Your task to perform on an android device: toggle airplane mode Image 0: 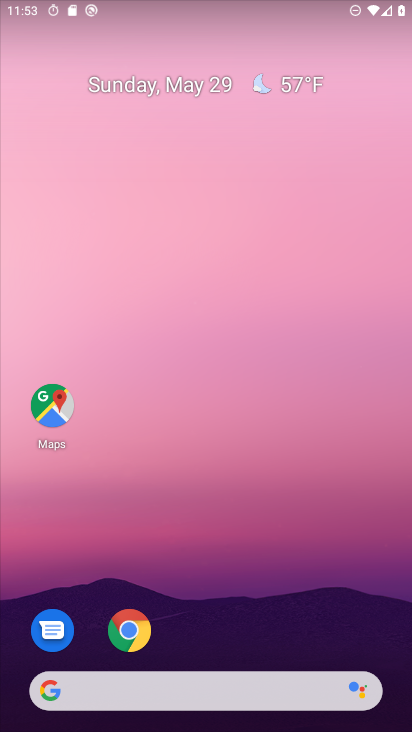
Step 0: drag from (272, 584) to (222, 89)
Your task to perform on an android device: toggle airplane mode Image 1: 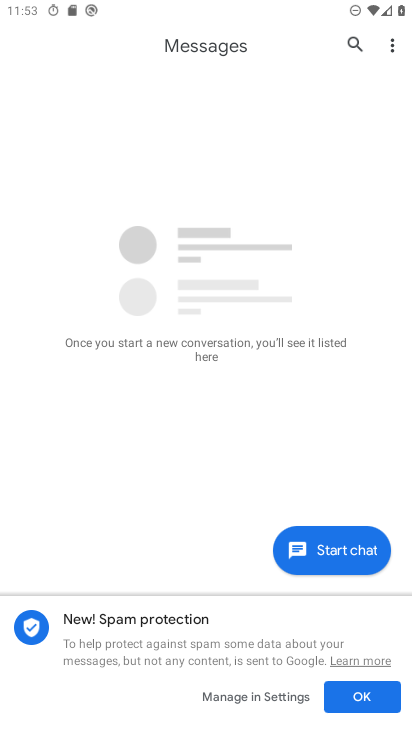
Step 1: press home button
Your task to perform on an android device: toggle airplane mode Image 2: 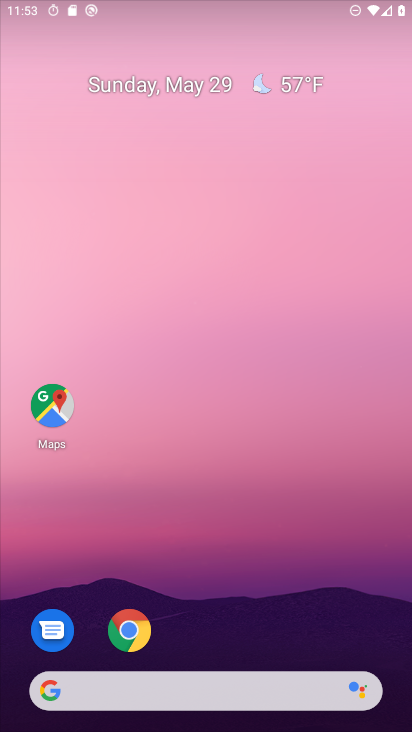
Step 2: drag from (209, 710) to (107, 16)
Your task to perform on an android device: toggle airplane mode Image 3: 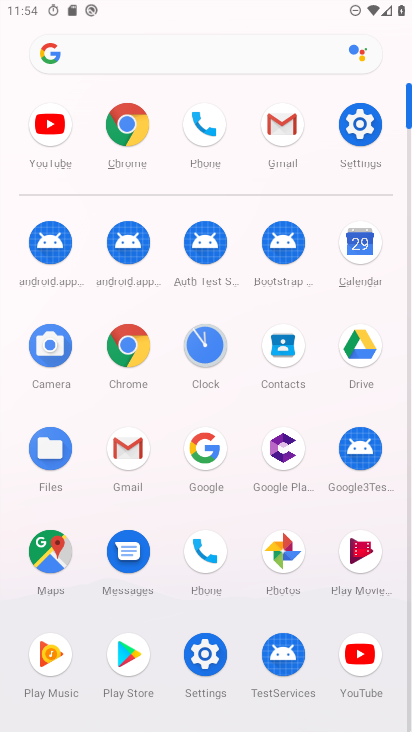
Step 3: click (376, 109)
Your task to perform on an android device: toggle airplane mode Image 4: 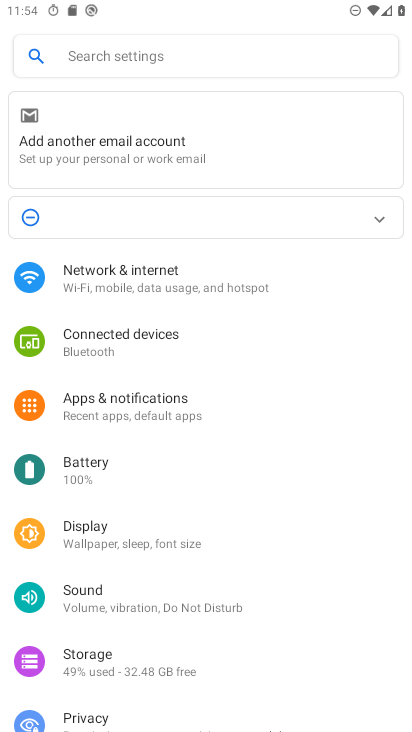
Step 4: click (132, 260)
Your task to perform on an android device: toggle airplane mode Image 5: 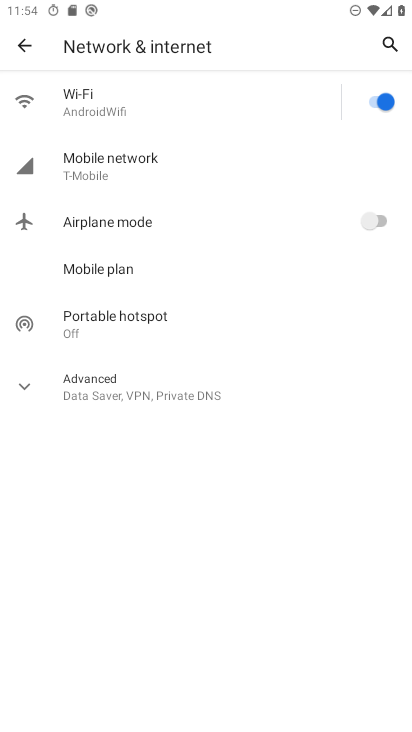
Step 5: click (364, 216)
Your task to perform on an android device: toggle airplane mode Image 6: 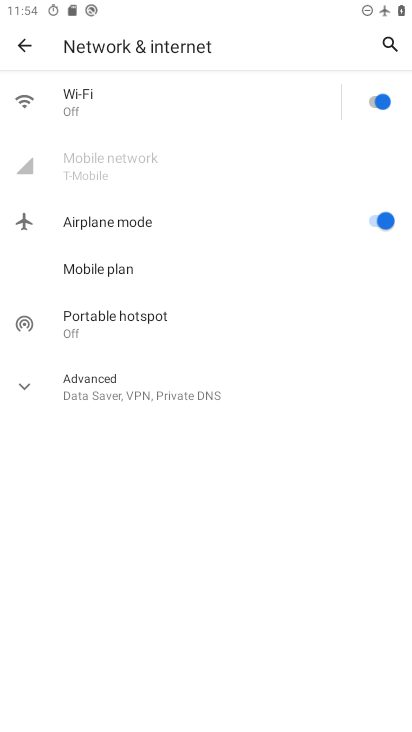
Step 6: click (364, 216)
Your task to perform on an android device: toggle airplane mode Image 7: 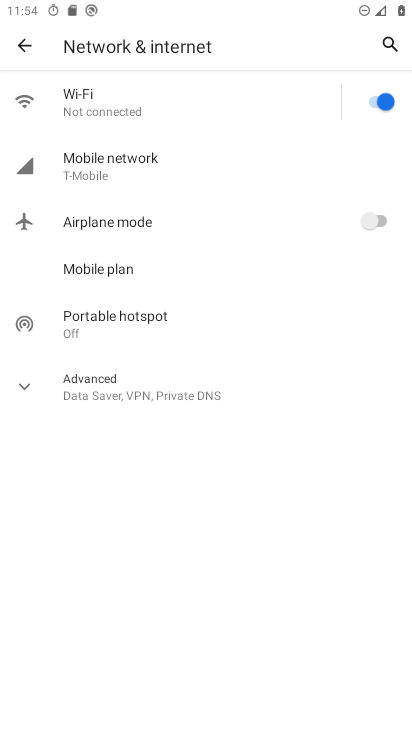
Step 7: task complete